Your task to perform on an android device: Go to privacy settings Image 0: 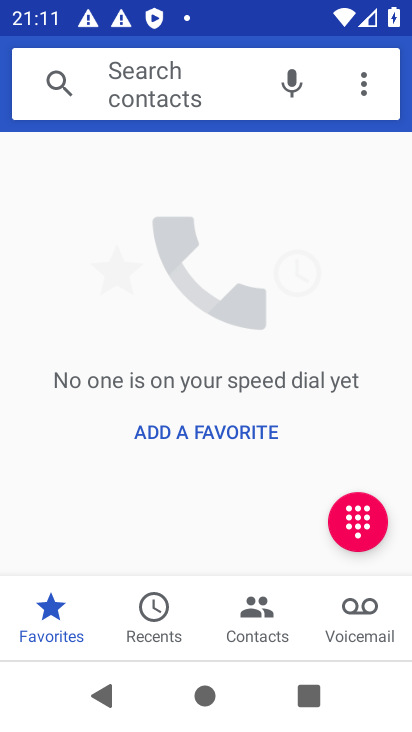
Step 0: press home button
Your task to perform on an android device: Go to privacy settings Image 1: 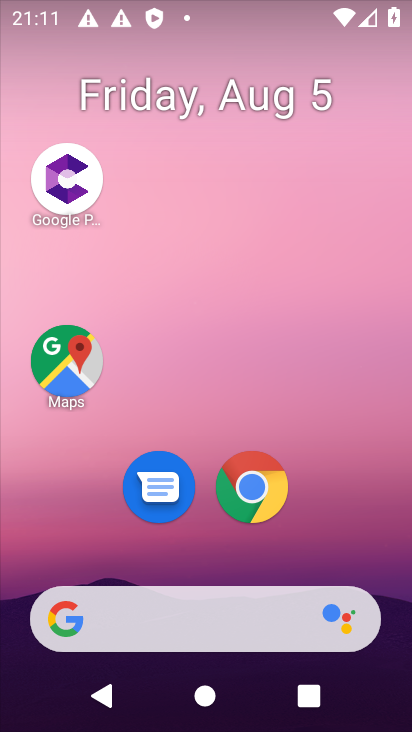
Step 1: drag from (216, 546) to (92, 9)
Your task to perform on an android device: Go to privacy settings Image 2: 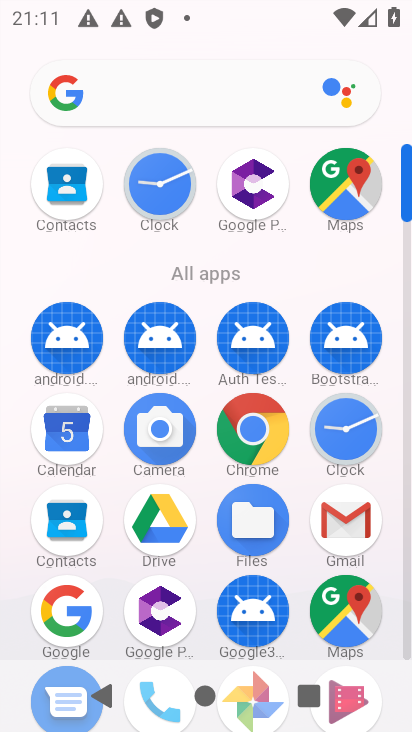
Step 2: drag from (202, 573) to (115, 14)
Your task to perform on an android device: Go to privacy settings Image 3: 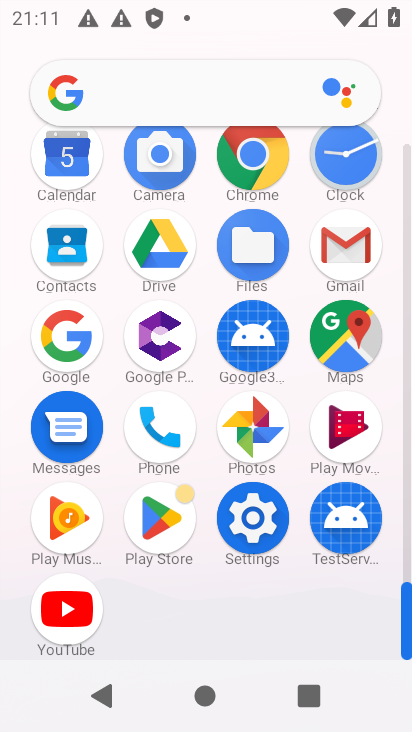
Step 3: click (248, 509)
Your task to perform on an android device: Go to privacy settings Image 4: 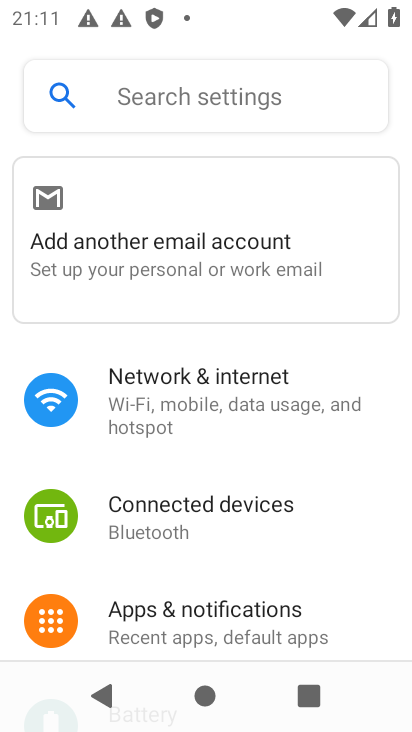
Step 4: drag from (248, 509) to (203, 52)
Your task to perform on an android device: Go to privacy settings Image 5: 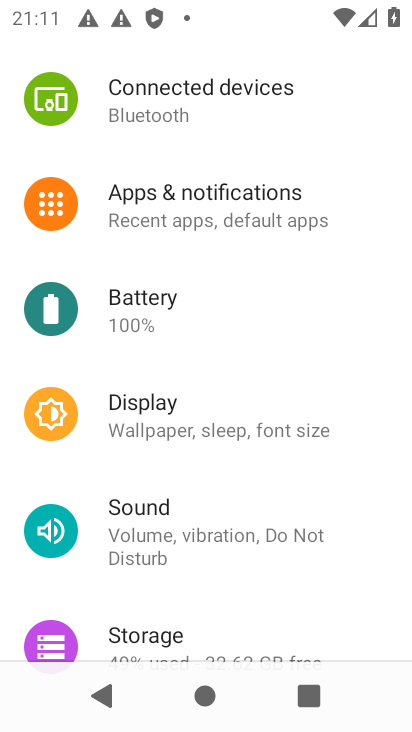
Step 5: drag from (286, 453) to (240, 27)
Your task to perform on an android device: Go to privacy settings Image 6: 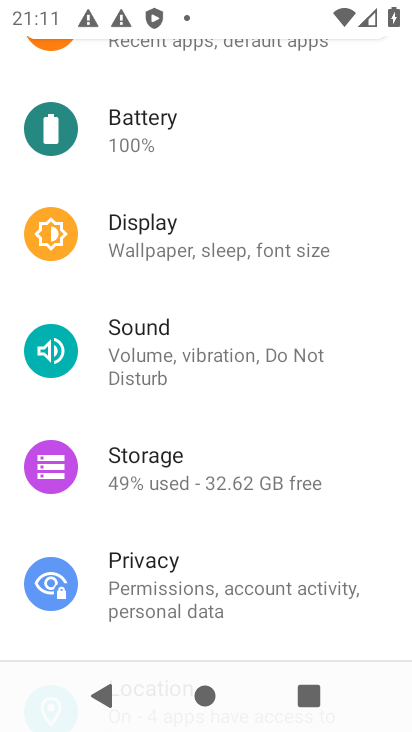
Step 6: click (130, 565)
Your task to perform on an android device: Go to privacy settings Image 7: 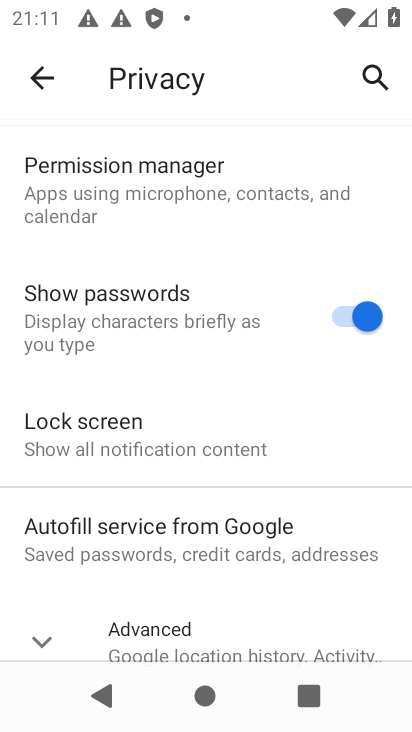
Step 7: click (132, 613)
Your task to perform on an android device: Go to privacy settings Image 8: 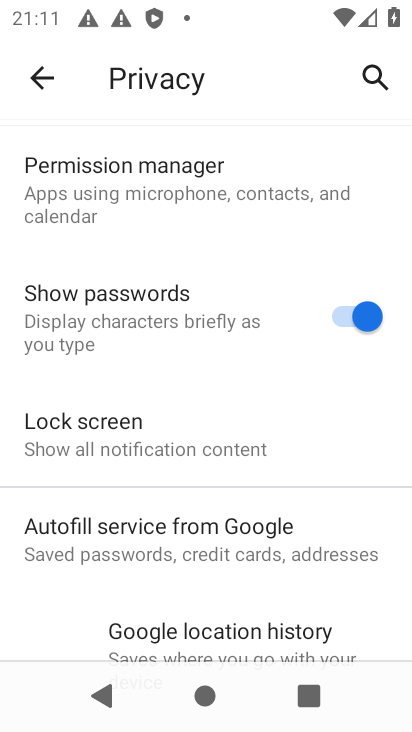
Step 8: task complete